Your task to perform on an android device: choose inbox layout in the gmail app Image 0: 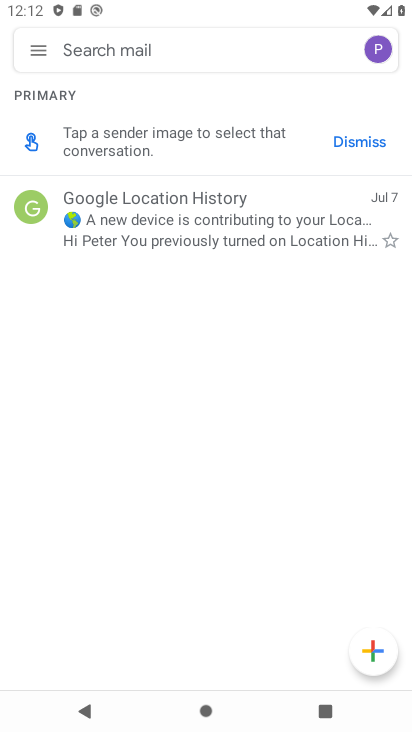
Step 0: press home button
Your task to perform on an android device: choose inbox layout in the gmail app Image 1: 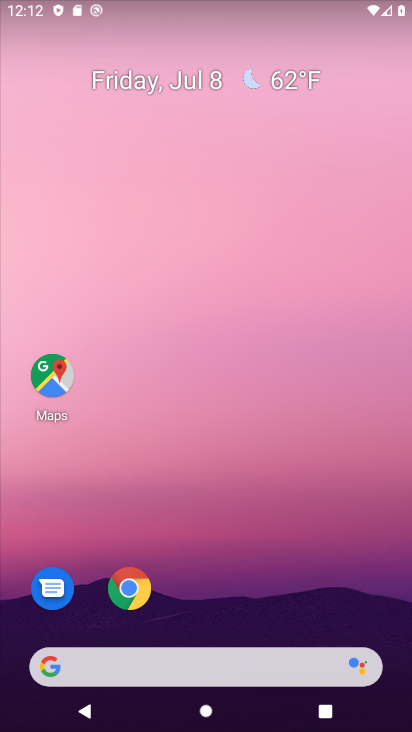
Step 1: drag from (175, 499) to (169, 236)
Your task to perform on an android device: choose inbox layout in the gmail app Image 2: 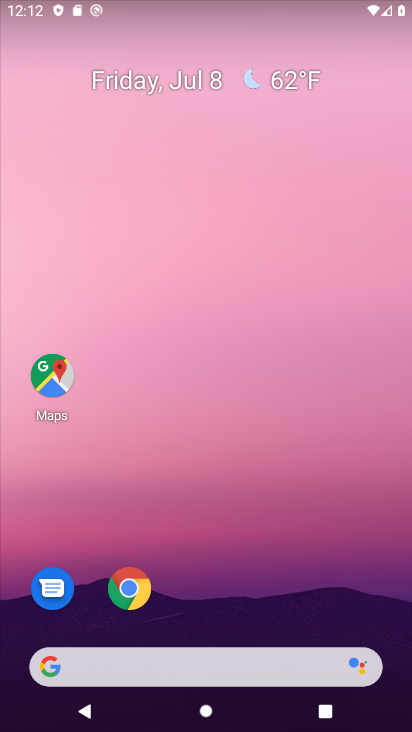
Step 2: drag from (210, 313) to (218, 165)
Your task to perform on an android device: choose inbox layout in the gmail app Image 3: 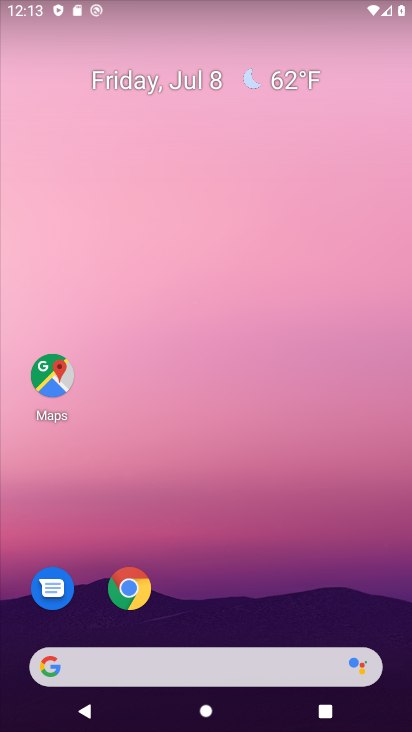
Step 3: drag from (193, 300) to (188, 119)
Your task to perform on an android device: choose inbox layout in the gmail app Image 4: 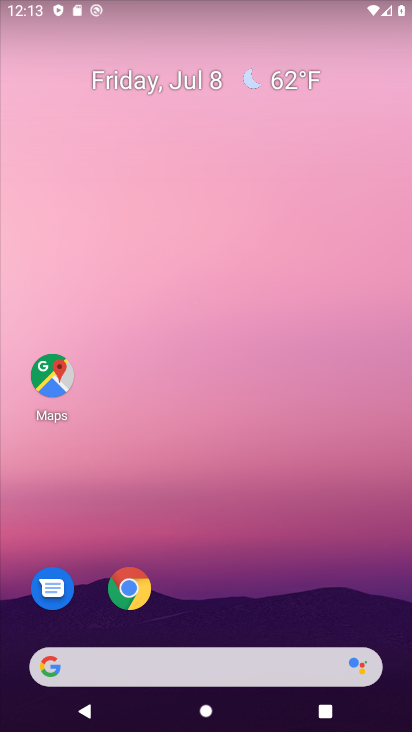
Step 4: drag from (212, 345) to (231, 16)
Your task to perform on an android device: choose inbox layout in the gmail app Image 5: 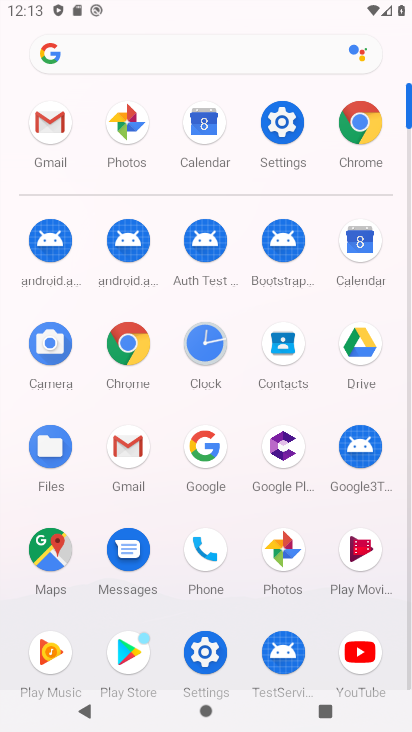
Step 5: click (46, 161)
Your task to perform on an android device: choose inbox layout in the gmail app Image 6: 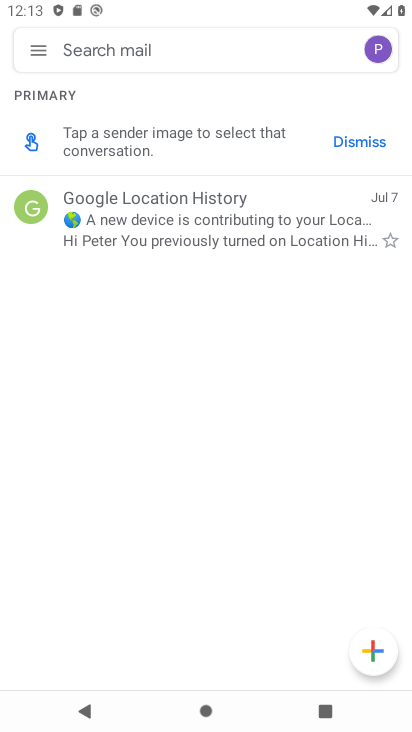
Step 6: click (37, 44)
Your task to perform on an android device: choose inbox layout in the gmail app Image 7: 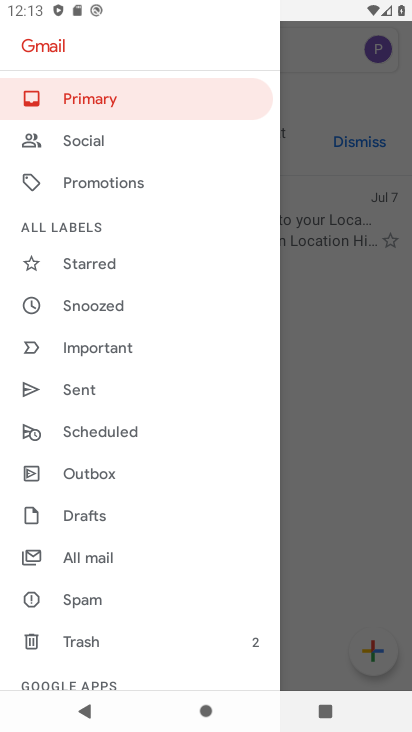
Step 7: drag from (80, 323) to (77, 131)
Your task to perform on an android device: choose inbox layout in the gmail app Image 8: 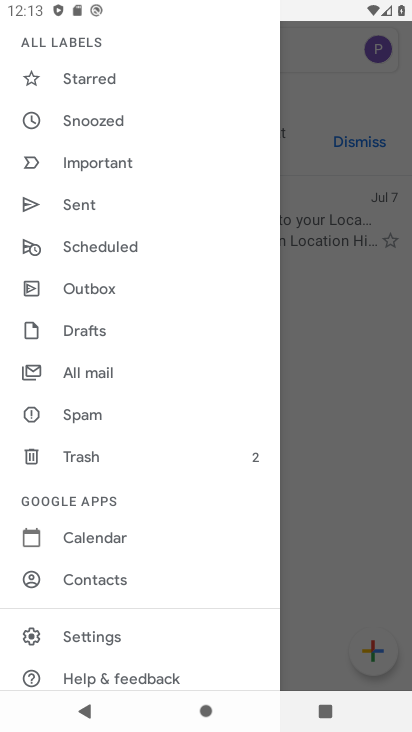
Step 8: click (113, 639)
Your task to perform on an android device: choose inbox layout in the gmail app Image 9: 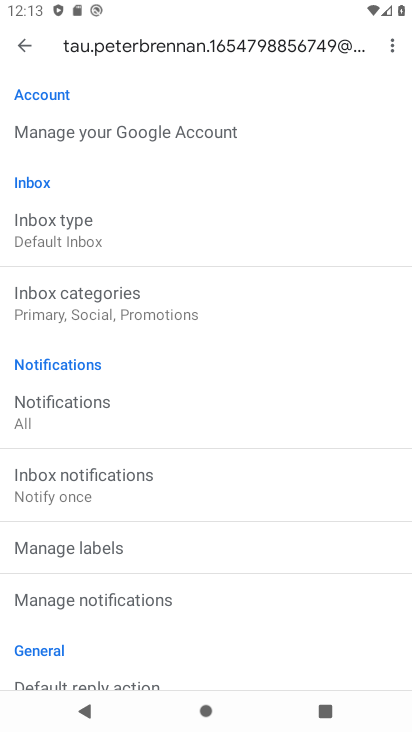
Step 9: drag from (105, 676) to (121, 443)
Your task to perform on an android device: choose inbox layout in the gmail app Image 10: 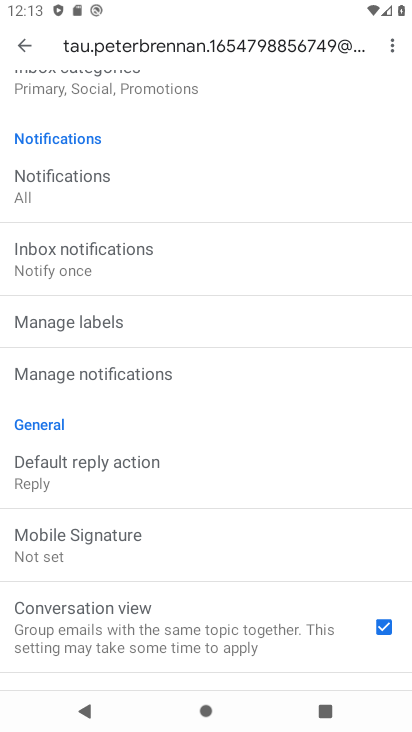
Step 10: drag from (179, 190) to (217, 548)
Your task to perform on an android device: choose inbox layout in the gmail app Image 11: 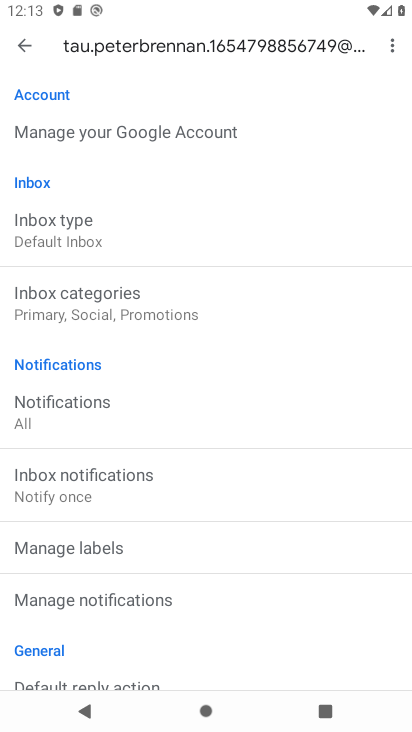
Step 11: click (230, 610)
Your task to perform on an android device: choose inbox layout in the gmail app Image 12: 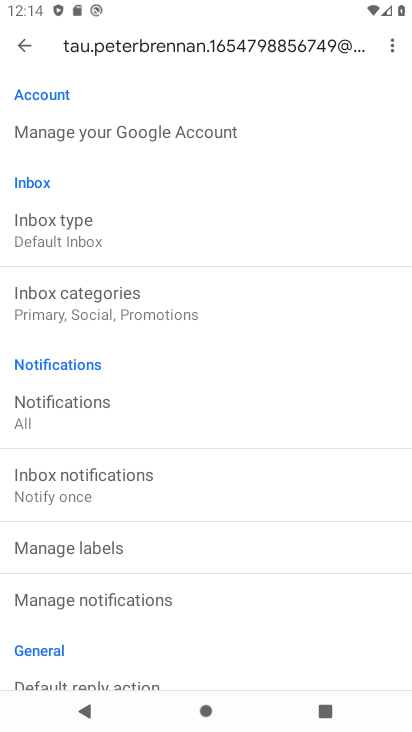
Step 12: click (35, 235)
Your task to perform on an android device: choose inbox layout in the gmail app Image 13: 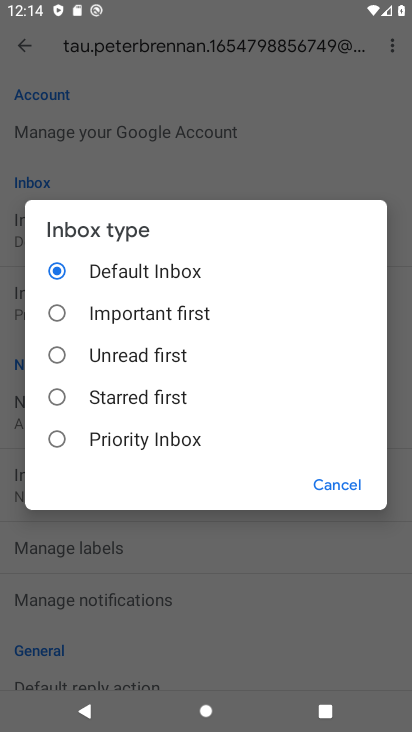
Step 13: click (63, 317)
Your task to perform on an android device: choose inbox layout in the gmail app Image 14: 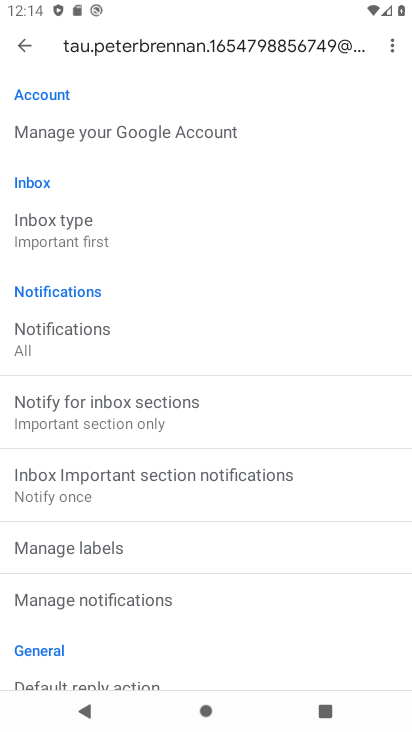
Step 14: task complete